Your task to perform on an android device: Open Google Chrome and click the shortcut for Amazon.com Image 0: 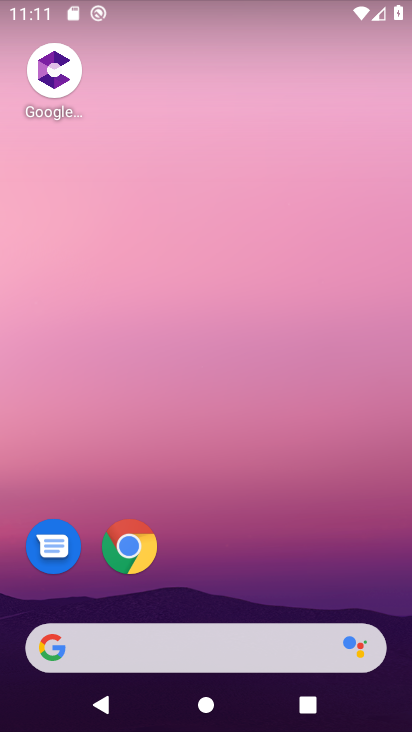
Step 0: click (148, 555)
Your task to perform on an android device: Open Google Chrome and click the shortcut for Amazon.com Image 1: 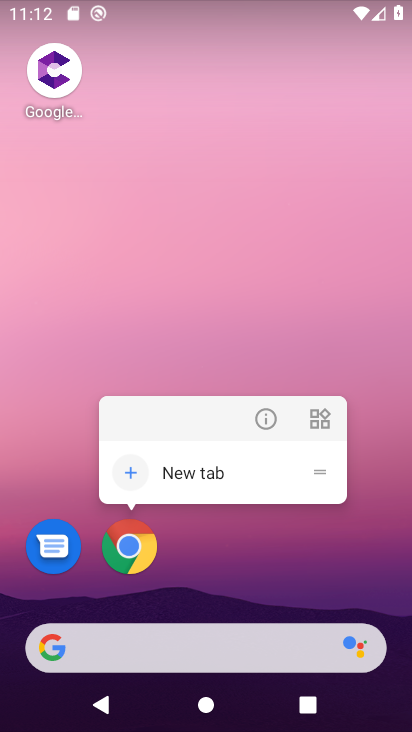
Step 1: click (139, 560)
Your task to perform on an android device: Open Google Chrome and click the shortcut for Amazon.com Image 2: 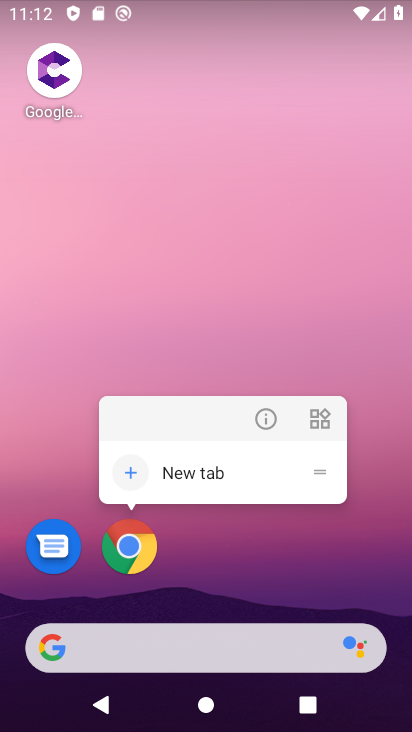
Step 2: click (124, 536)
Your task to perform on an android device: Open Google Chrome and click the shortcut for Amazon.com Image 3: 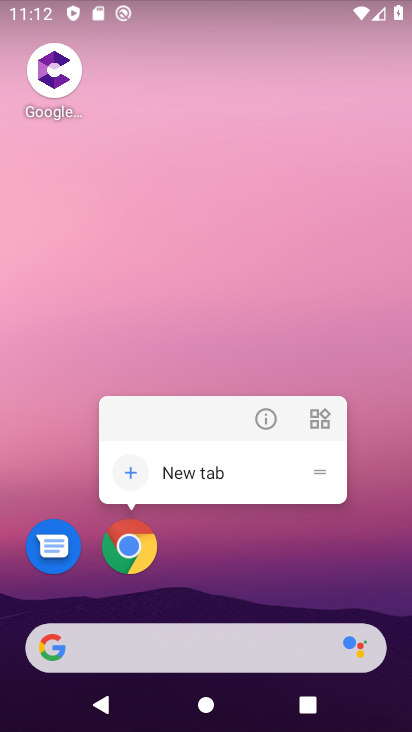
Step 3: click (125, 553)
Your task to perform on an android device: Open Google Chrome and click the shortcut for Amazon.com Image 4: 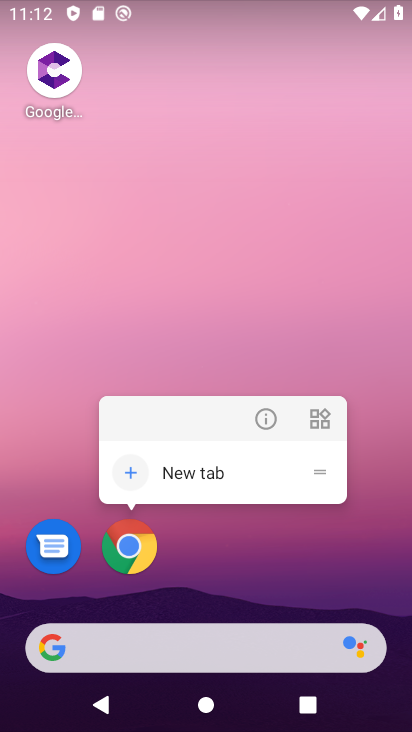
Step 4: click (144, 552)
Your task to perform on an android device: Open Google Chrome and click the shortcut for Amazon.com Image 5: 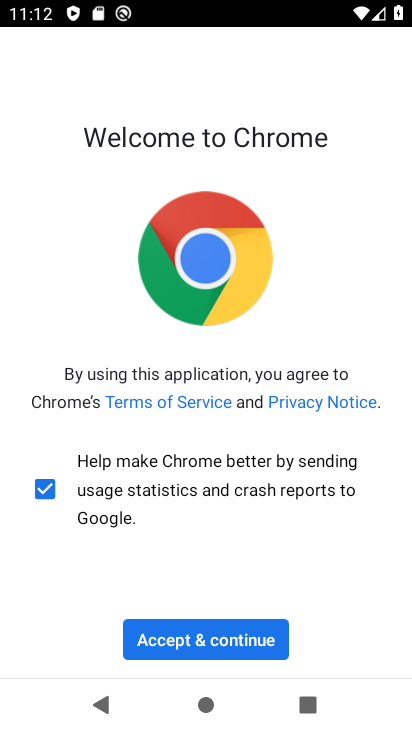
Step 5: click (250, 641)
Your task to perform on an android device: Open Google Chrome and click the shortcut for Amazon.com Image 6: 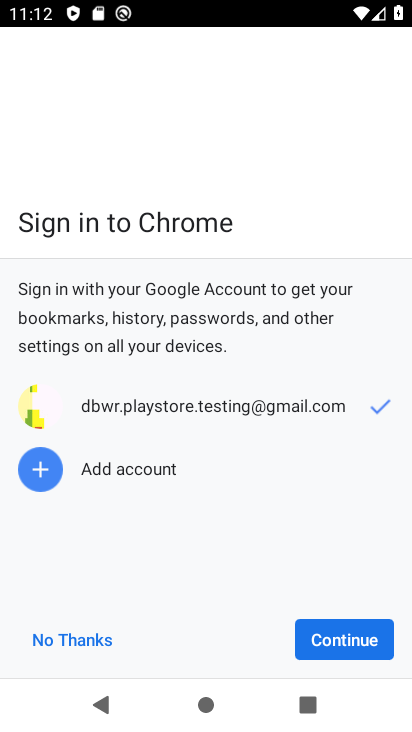
Step 6: click (352, 644)
Your task to perform on an android device: Open Google Chrome and click the shortcut for Amazon.com Image 7: 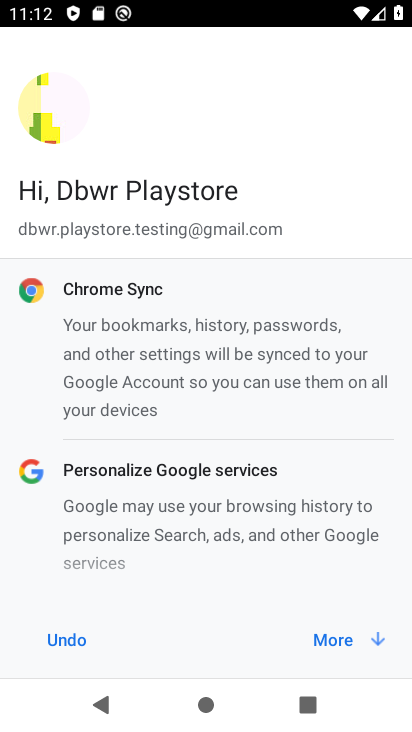
Step 7: click (353, 642)
Your task to perform on an android device: Open Google Chrome and click the shortcut for Amazon.com Image 8: 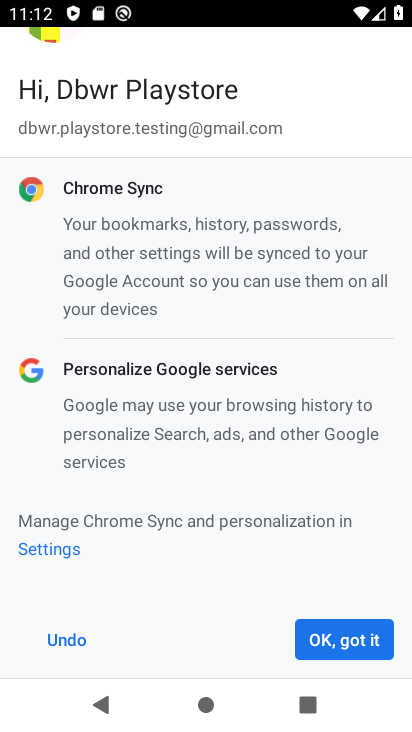
Step 8: click (353, 641)
Your task to perform on an android device: Open Google Chrome and click the shortcut for Amazon.com Image 9: 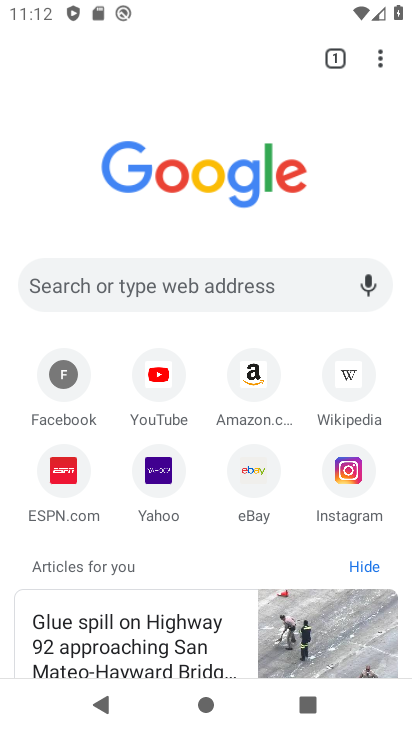
Step 9: click (256, 390)
Your task to perform on an android device: Open Google Chrome and click the shortcut for Amazon.com Image 10: 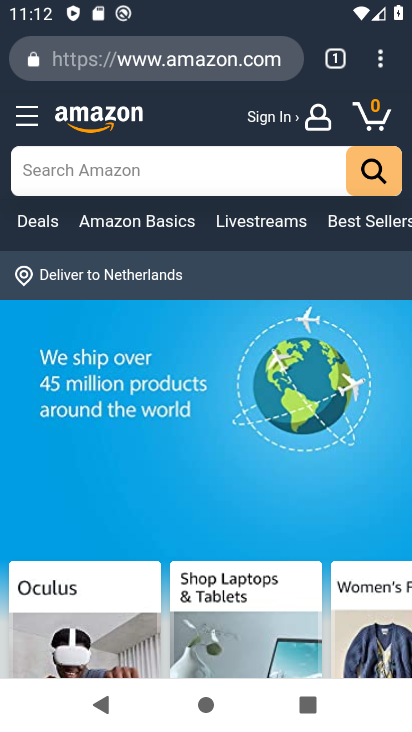
Step 10: task complete